Your task to perform on an android device: delete browsing data in the chrome app Image 0: 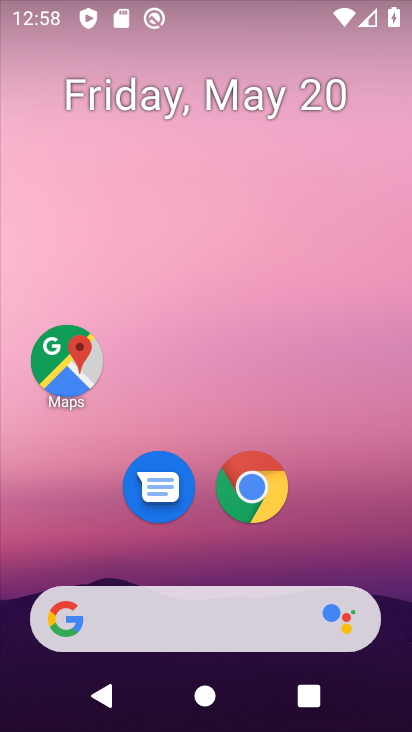
Step 0: drag from (342, 517) to (262, 20)
Your task to perform on an android device: delete browsing data in the chrome app Image 1: 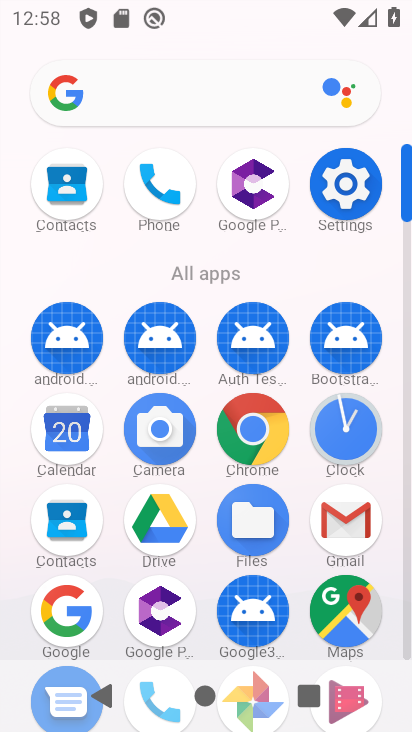
Step 1: click (250, 420)
Your task to perform on an android device: delete browsing data in the chrome app Image 2: 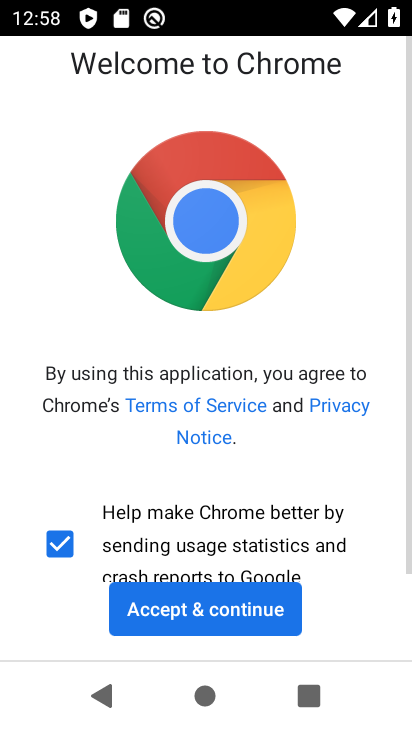
Step 2: click (196, 608)
Your task to perform on an android device: delete browsing data in the chrome app Image 3: 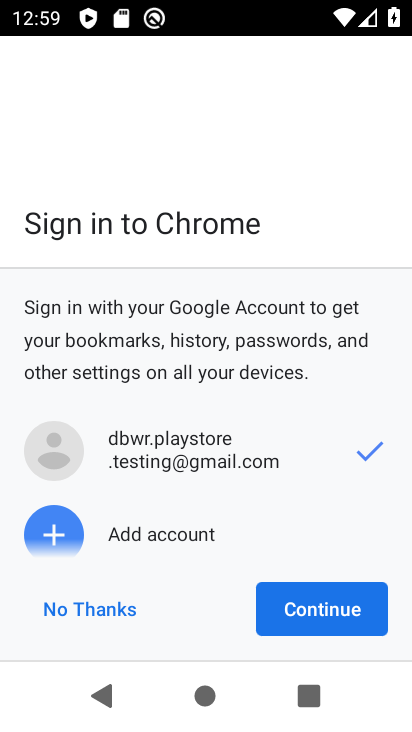
Step 3: press back button
Your task to perform on an android device: delete browsing data in the chrome app Image 4: 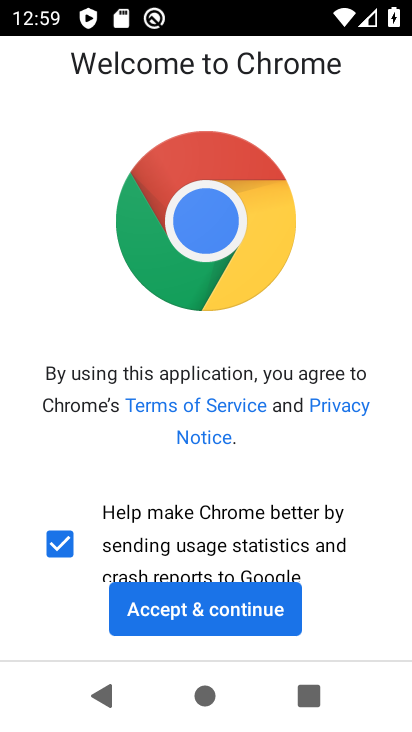
Step 4: press home button
Your task to perform on an android device: delete browsing data in the chrome app Image 5: 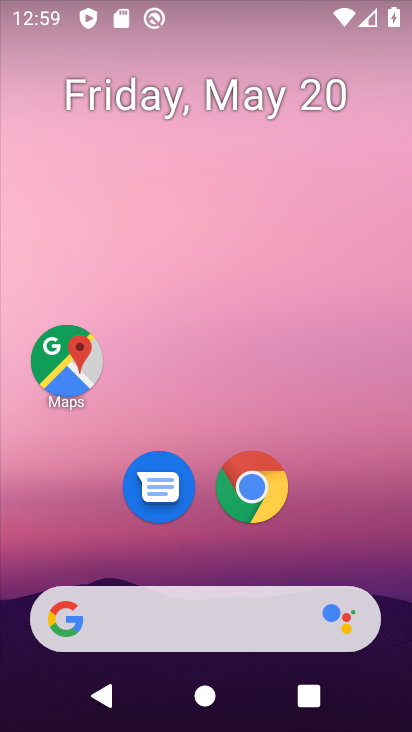
Step 5: drag from (300, 513) to (238, 4)
Your task to perform on an android device: delete browsing data in the chrome app Image 6: 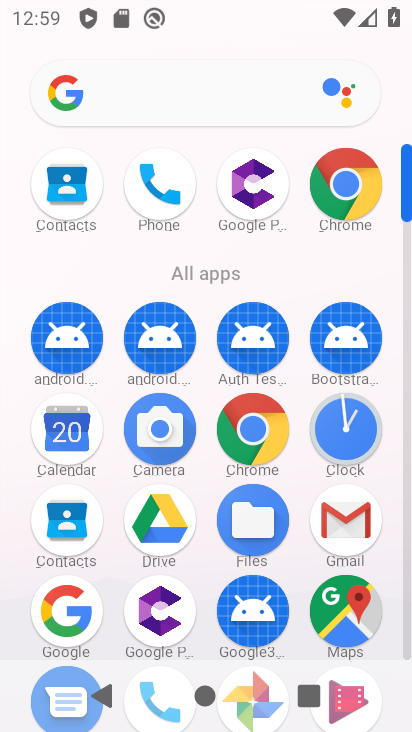
Step 6: click (342, 181)
Your task to perform on an android device: delete browsing data in the chrome app Image 7: 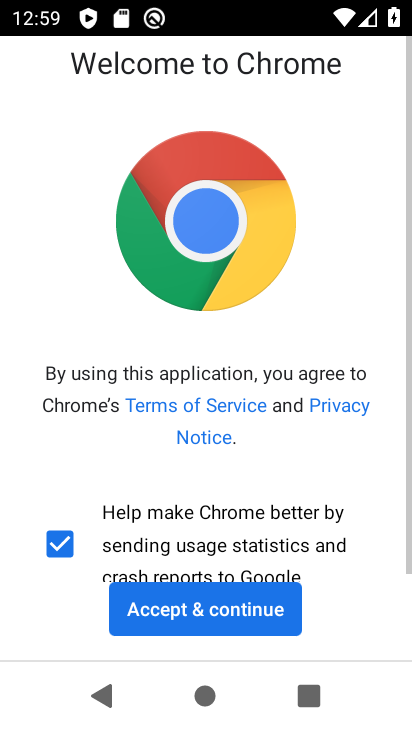
Step 7: click (213, 606)
Your task to perform on an android device: delete browsing data in the chrome app Image 8: 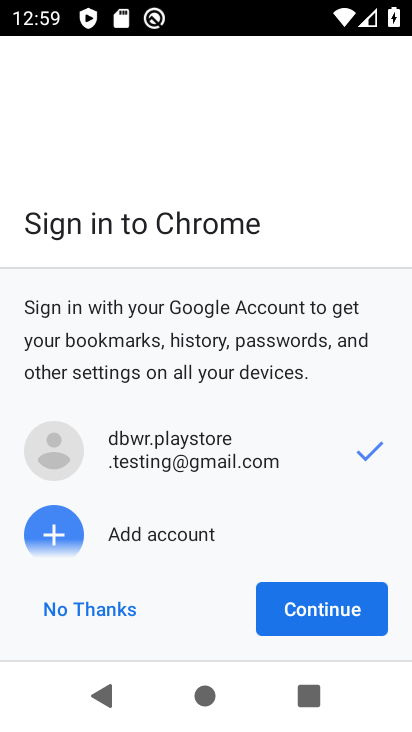
Step 8: click (322, 598)
Your task to perform on an android device: delete browsing data in the chrome app Image 9: 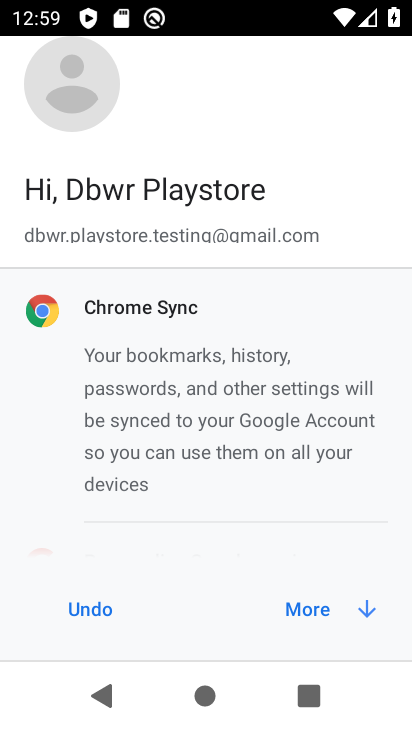
Step 9: click (301, 604)
Your task to perform on an android device: delete browsing data in the chrome app Image 10: 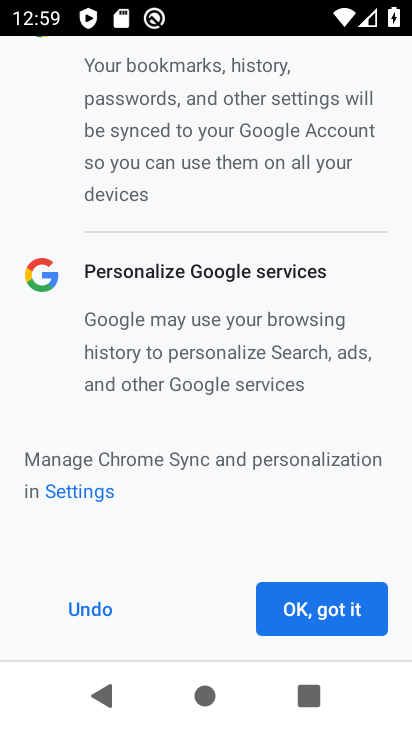
Step 10: click (301, 604)
Your task to perform on an android device: delete browsing data in the chrome app Image 11: 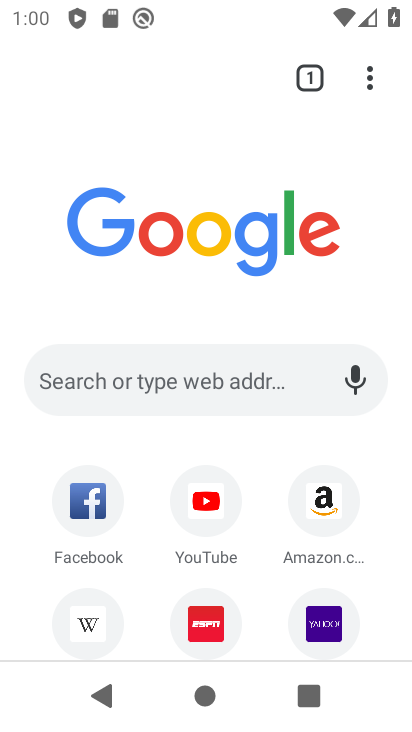
Step 11: task complete